Your task to perform on an android device: When is my next appointment? Image 0: 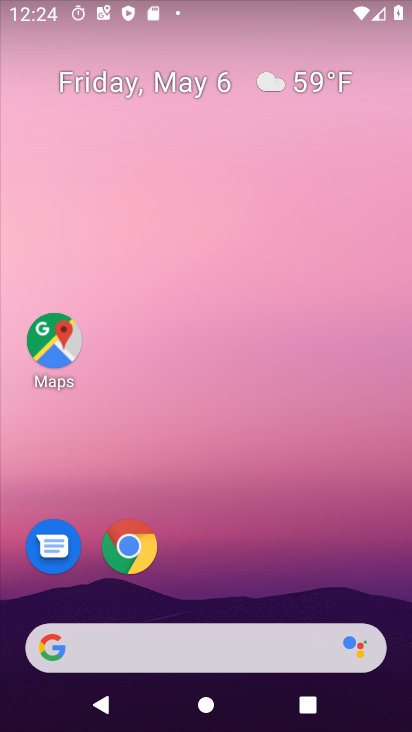
Step 0: drag from (240, 550) to (248, 125)
Your task to perform on an android device: When is my next appointment? Image 1: 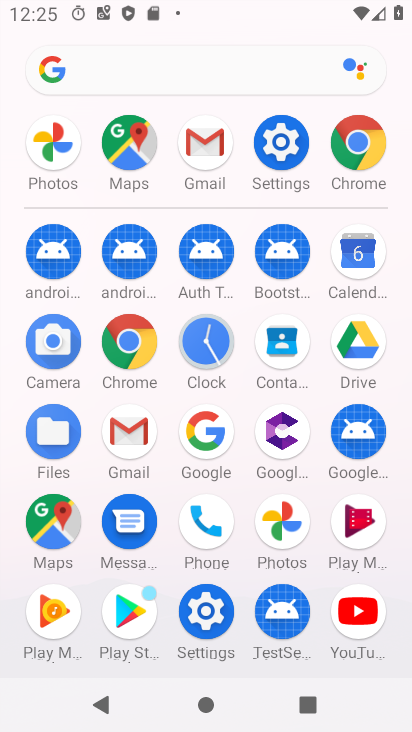
Step 1: click (280, 150)
Your task to perform on an android device: When is my next appointment? Image 2: 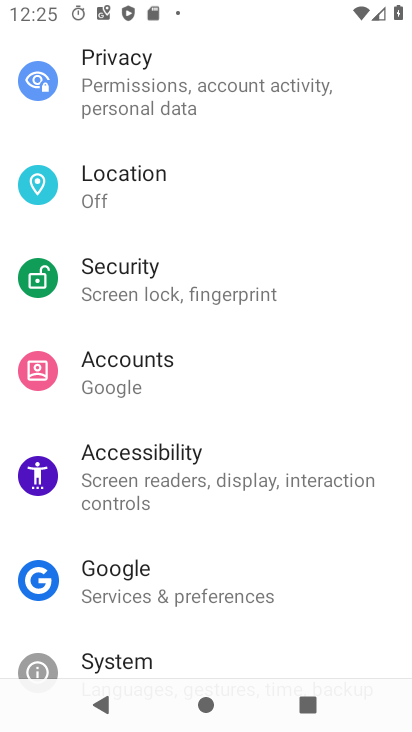
Step 2: press home button
Your task to perform on an android device: When is my next appointment? Image 3: 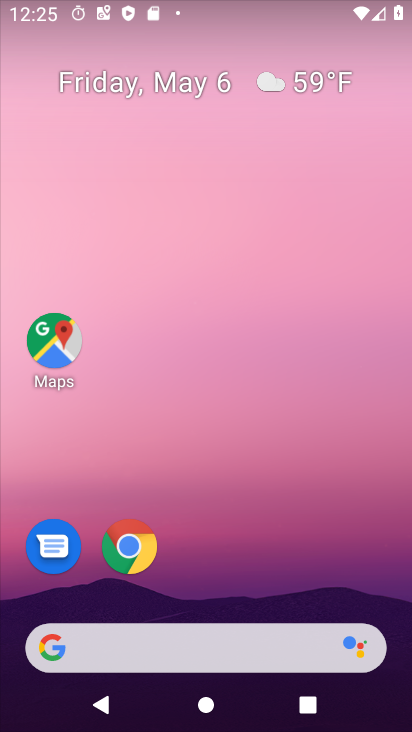
Step 3: drag from (290, 542) to (289, 169)
Your task to perform on an android device: When is my next appointment? Image 4: 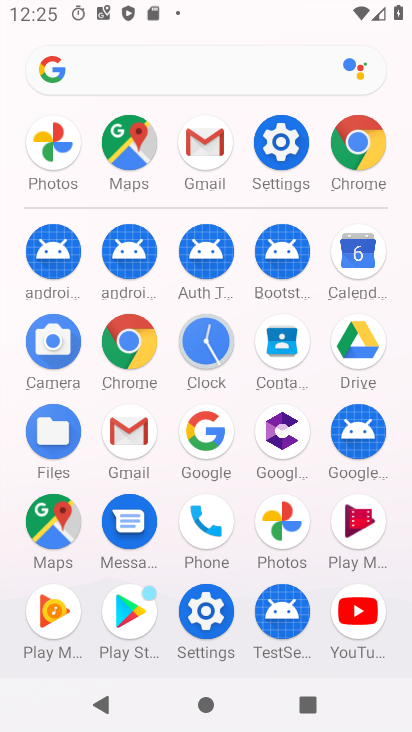
Step 4: click (358, 266)
Your task to perform on an android device: When is my next appointment? Image 5: 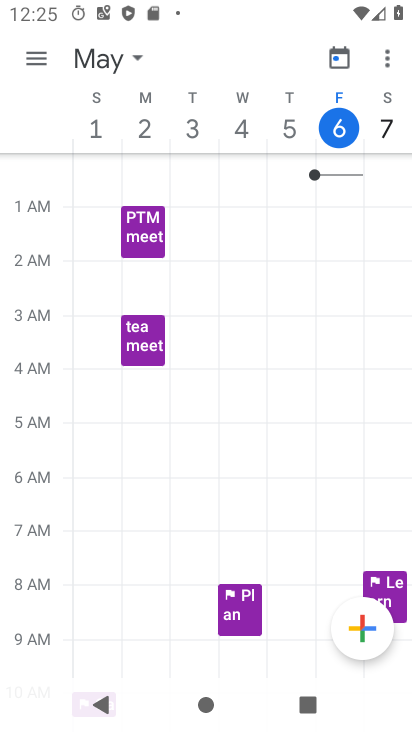
Step 5: click (36, 54)
Your task to perform on an android device: When is my next appointment? Image 6: 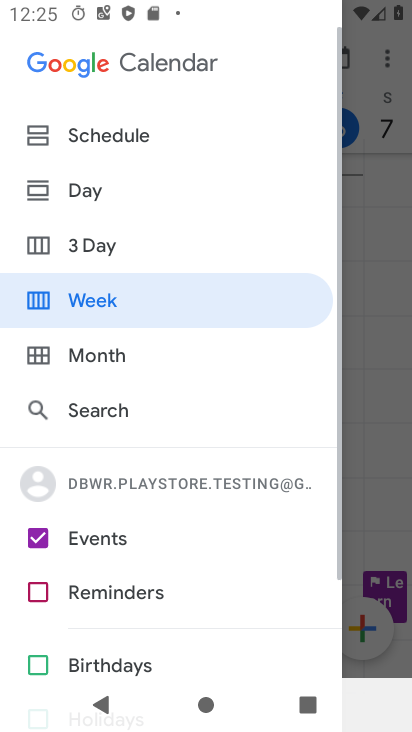
Step 6: click (57, 130)
Your task to perform on an android device: When is my next appointment? Image 7: 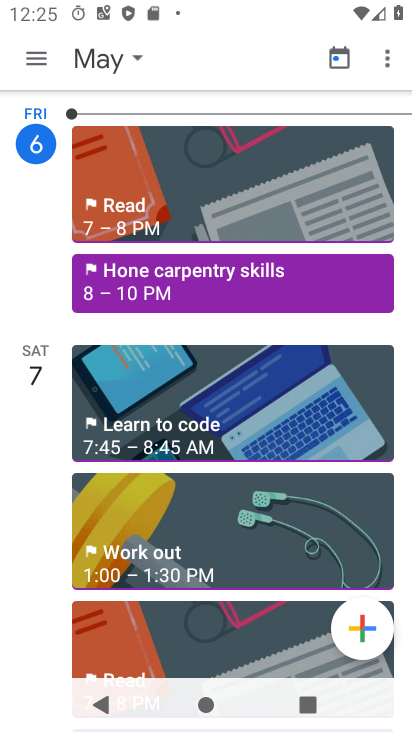
Step 7: task complete